Your task to perform on an android device: turn on airplane mode Image 0: 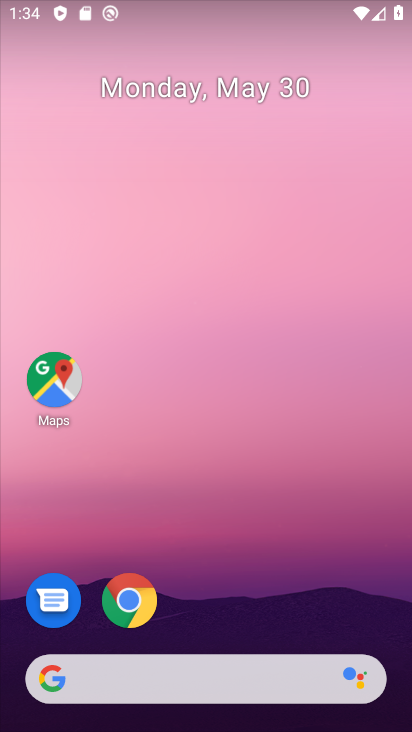
Step 0: drag from (217, 648) to (208, 92)
Your task to perform on an android device: turn on airplane mode Image 1: 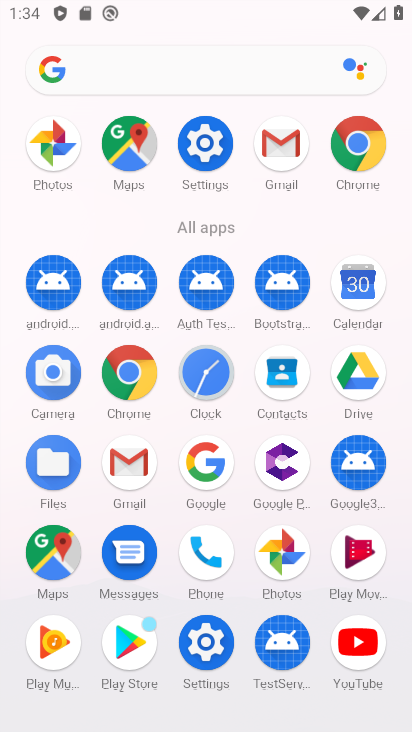
Step 1: click (225, 148)
Your task to perform on an android device: turn on airplane mode Image 2: 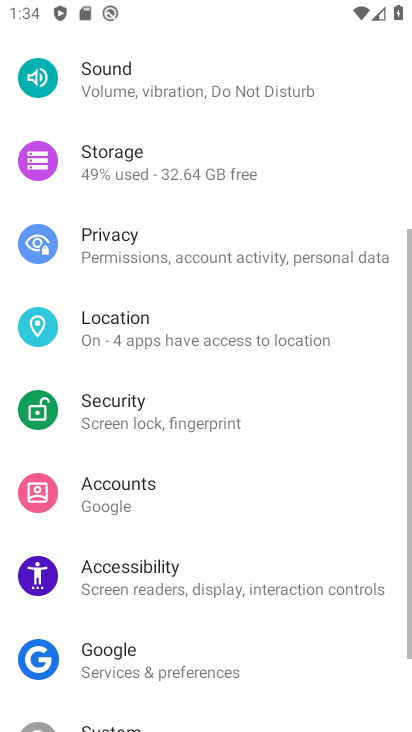
Step 2: drag from (224, 148) to (217, 589)
Your task to perform on an android device: turn on airplane mode Image 3: 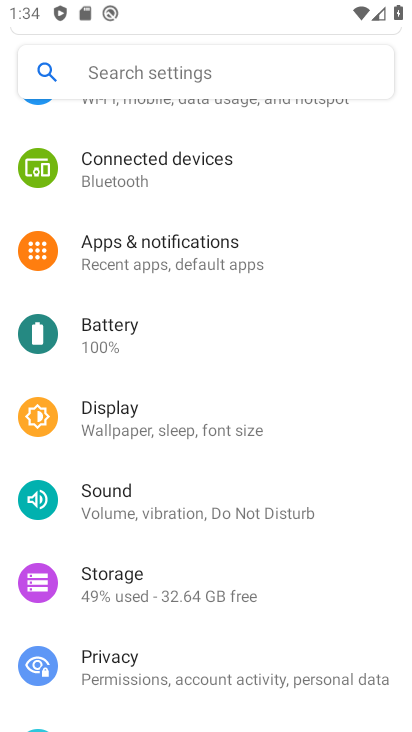
Step 3: drag from (148, 178) to (132, 543)
Your task to perform on an android device: turn on airplane mode Image 4: 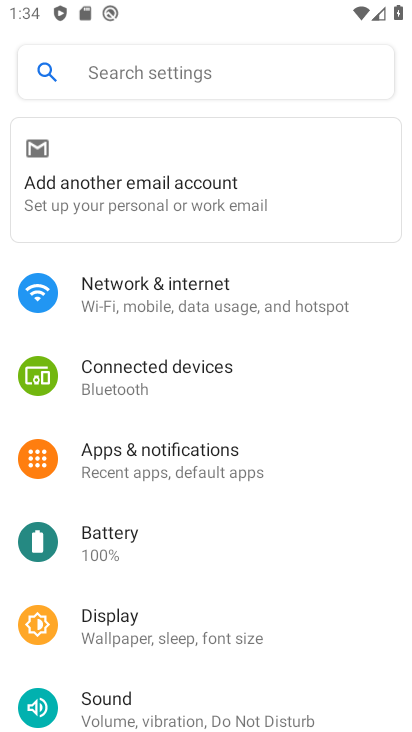
Step 4: click (138, 289)
Your task to perform on an android device: turn on airplane mode Image 5: 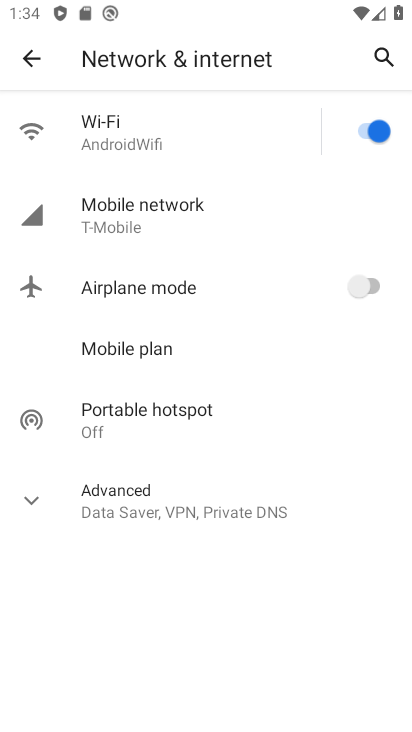
Step 5: click (363, 289)
Your task to perform on an android device: turn on airplane mode Image 6: 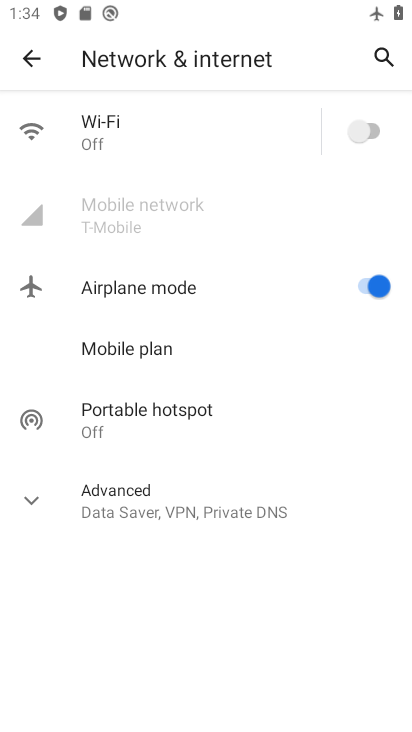
Step 6: task complete